Your task to perform on an android device: turn on airplane mode Image 0: 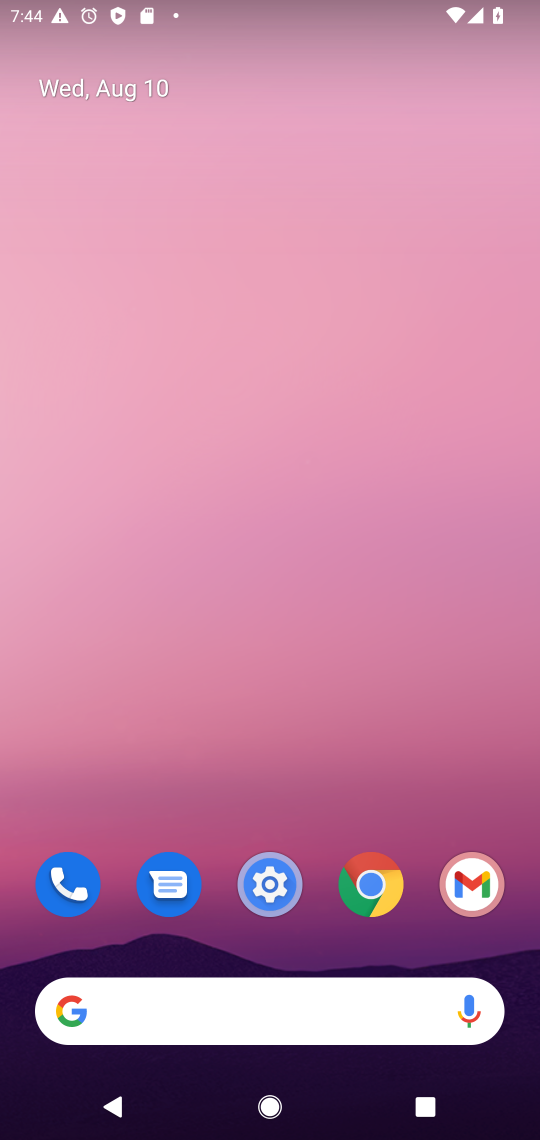
Step 0: click (266, 887)
Your task to perform on an android device: turn on airplane mode Image 1: 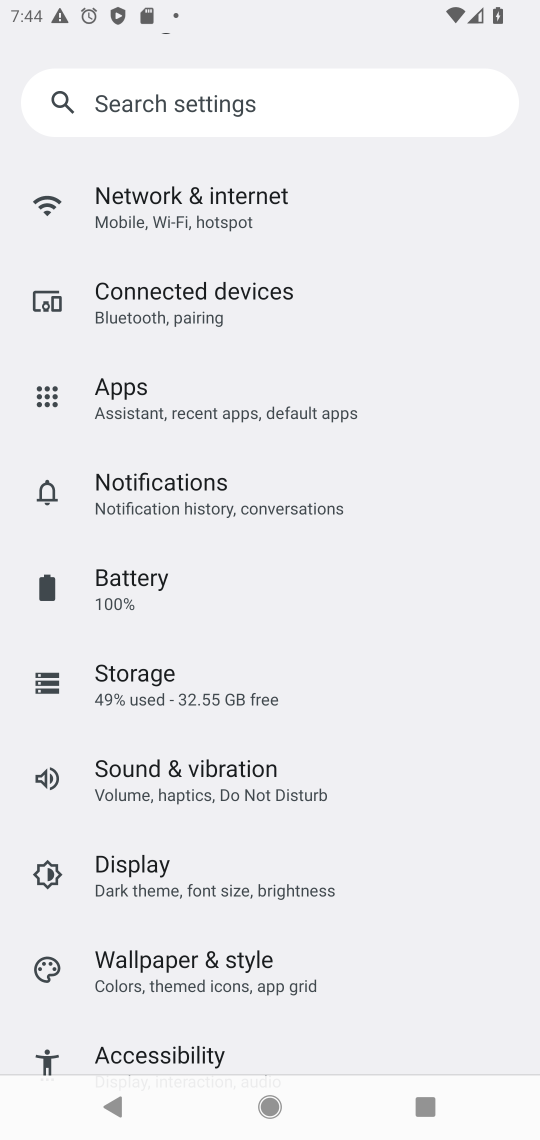
Step 1: click (211, 171)
Your task to perform on an android device: turn on airplane mode Image 2: 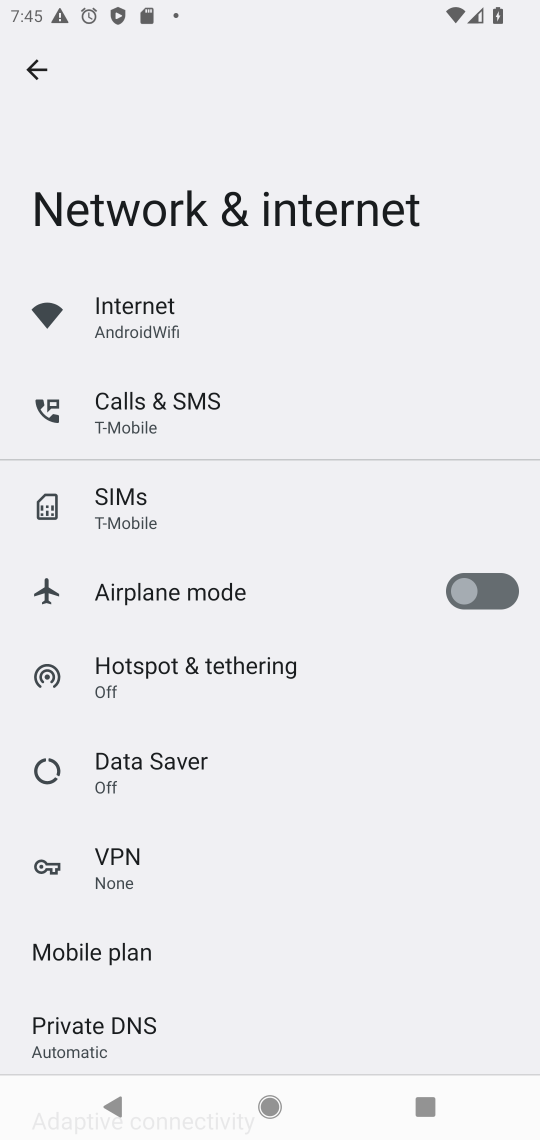
Step 2: click (473, 603)
Your task to perform on an android device: turn on airplane mode Image 3: 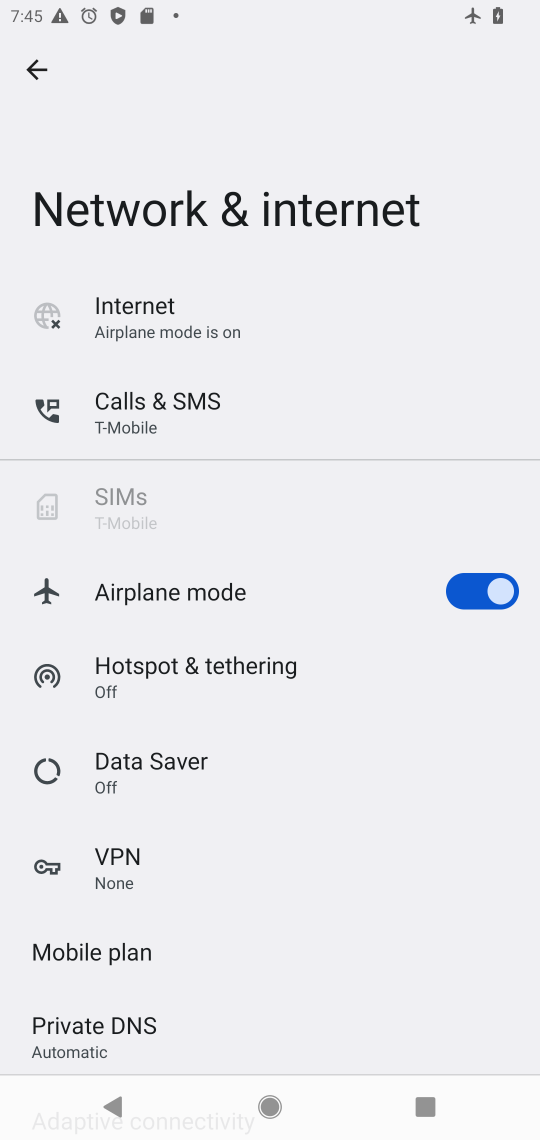
Step 3: task complete